Your task to perform on an android device: toggle priority inbox in the gmail app Image 0: 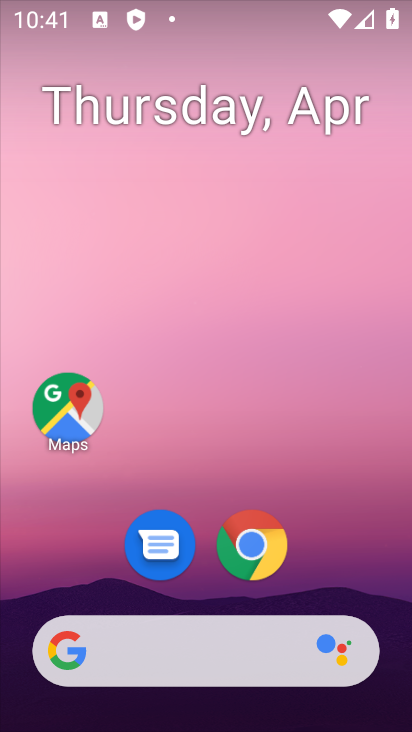
Step 0: drag from (49, 627) to (349, 222)
Your task to perform on an android device: toggle priority inbox in the gmail app Image 1: 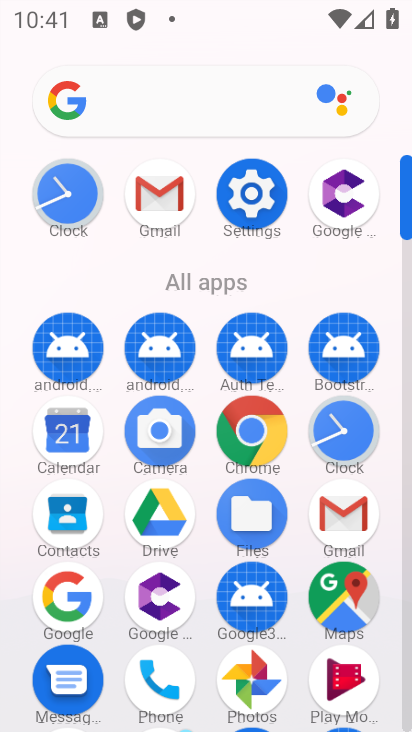
Step 1: click (333, 514)
Your task to perform on an android device: toggle priority inbox in the gmail app Image 2: 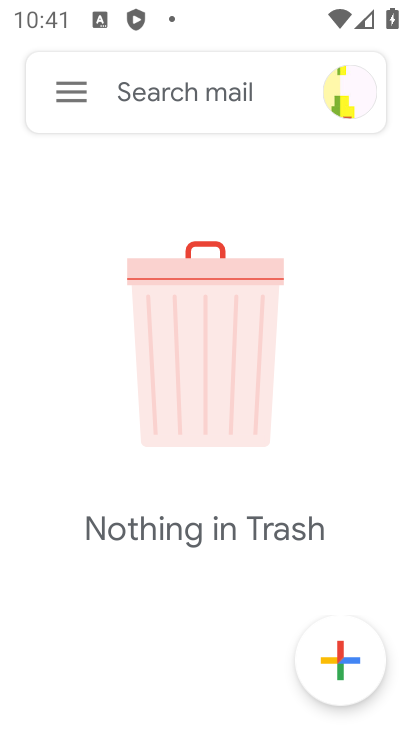
Step 2: click (63, 85)
Your task to perform on an android device: toggle priority inbox in the gmail app Image 3: 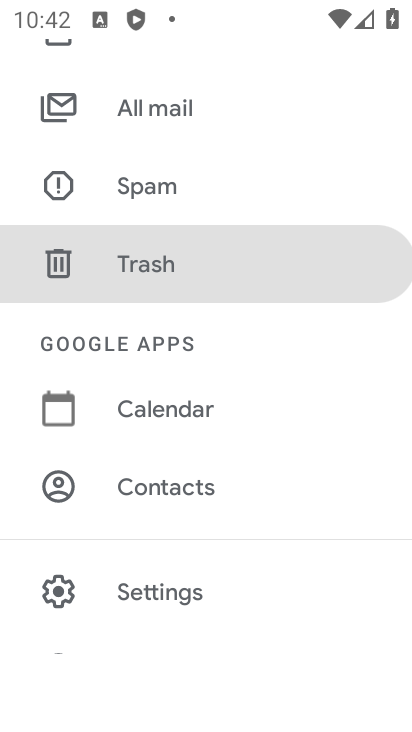
Step 3: click (155, 591)
Your task to perform on an android device: toggle priority inbox in the gmail app Image 4: 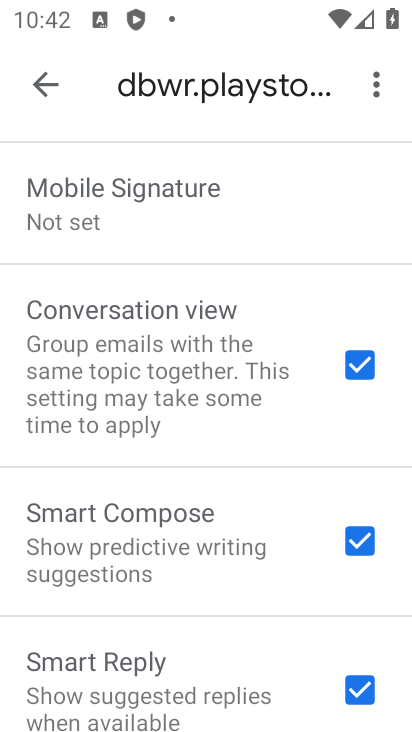
Step 4: drag from (122, 653) to (260, 335)
Your task to perform on an android device: toggle priority inbox in the gmail app Image 5: 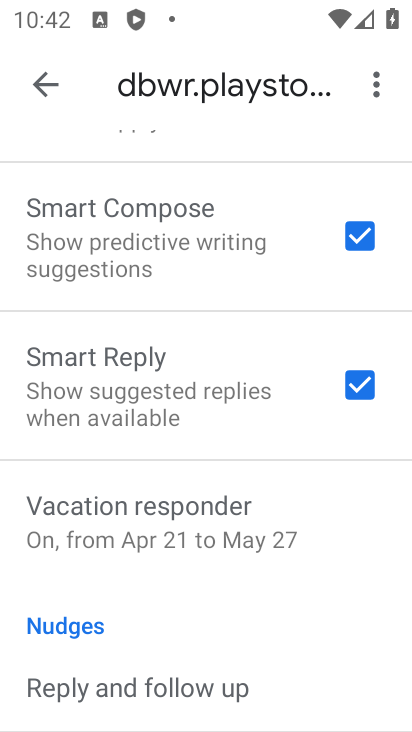
Step 5: drag from (156, 669) to (330, 391)
Your task to perform on an android device: toggle priority inbox in the gmail app Image 6: 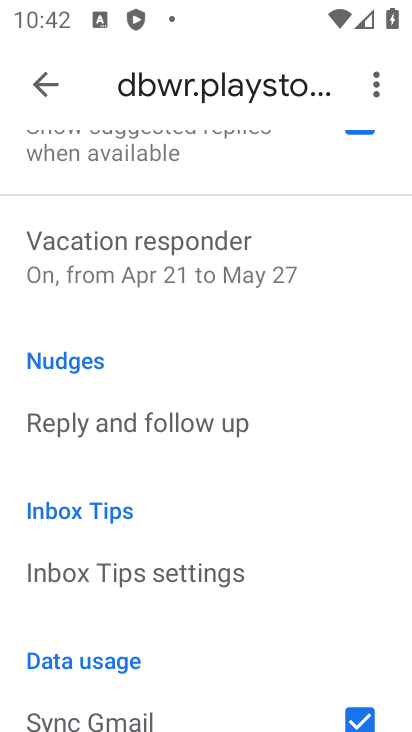
Step 6: drag from (231, 411) to (205, 580)
Your task to perform on an android device: toggle priority inbox in the gmail app Image 7: 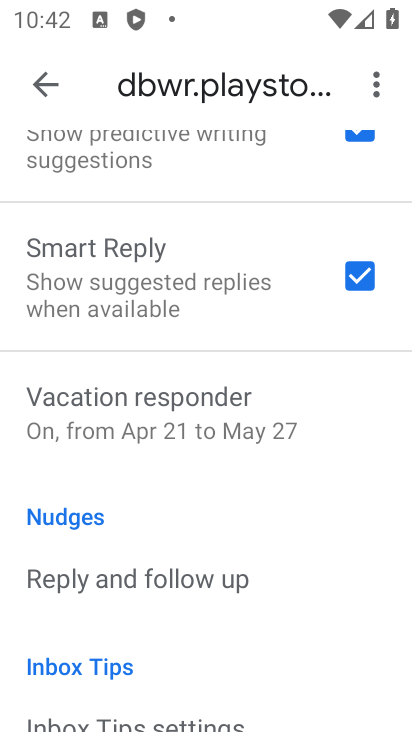
Step 7: click (238, 425)
Your task to perform on an android device: toggle priority inbox in the gmail app Image 8: 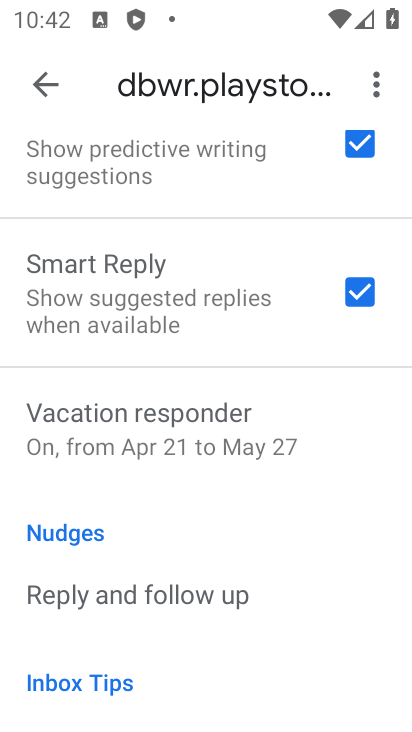
Step 8: drag from (236, 374) to (236, 605)
Your task to perform on an android device: toggle priority inbox in the gmail app Image 9: 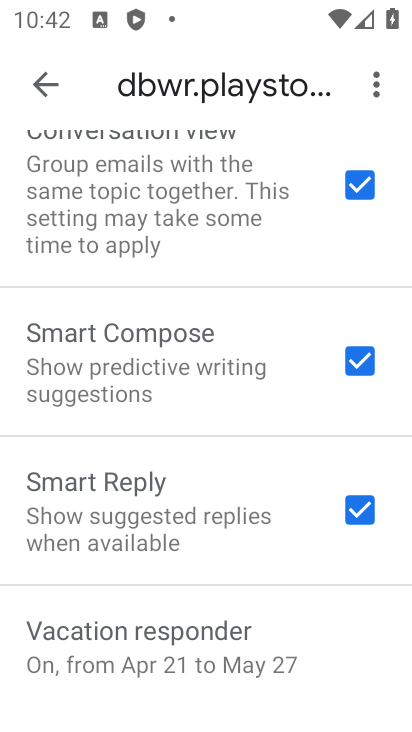
Step 9: drag from (207, 141) to (182, 597)
Your task to perform on an android device: toggle priority inbox in the gmail app Image 10: 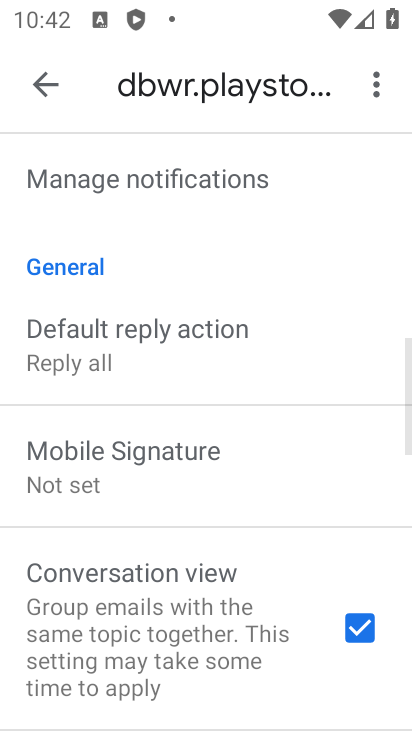
Step 10: drag from (110, 184) to (124, 600)
Your task to perform on an android device: toggle priority inbox in the gmail app Image 11: 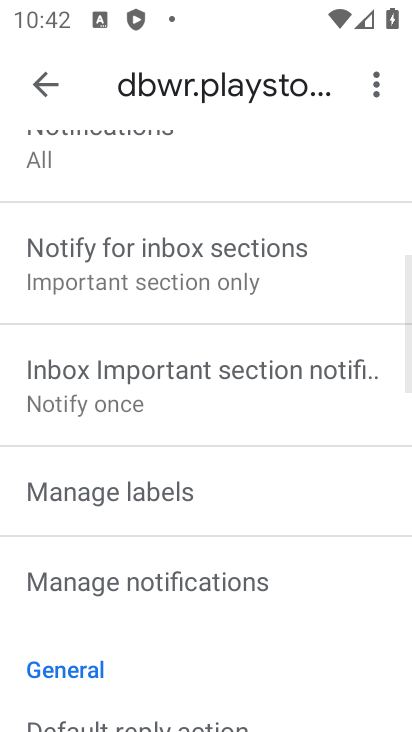
Step 11: drag from (167, 282) to (162, 582)
Your task to perform on an android device: toggle priority inbox in the gmail app Image 12: 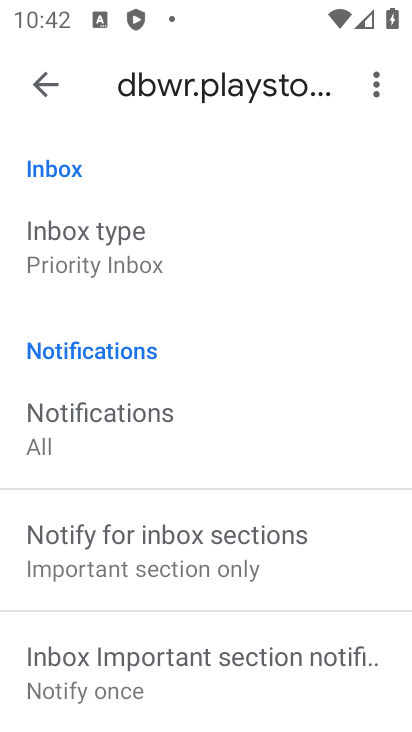
Step 12: click (89, 235)
Your task to perform on an android device: toggle priority inbox in the gmail app Image 13: 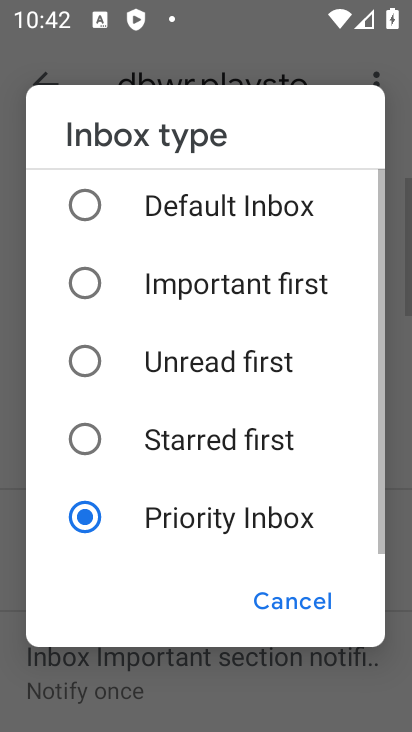
Step 13: click (150, 432)
Your task to perform on an android device: toggle priority inbox in the gmail app Image 14: 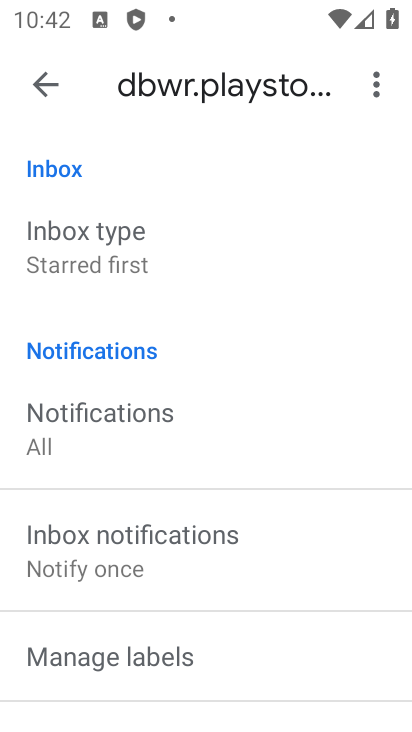
Step 14: task complete